Your task to perform on an android device: Open display settings Image 0: 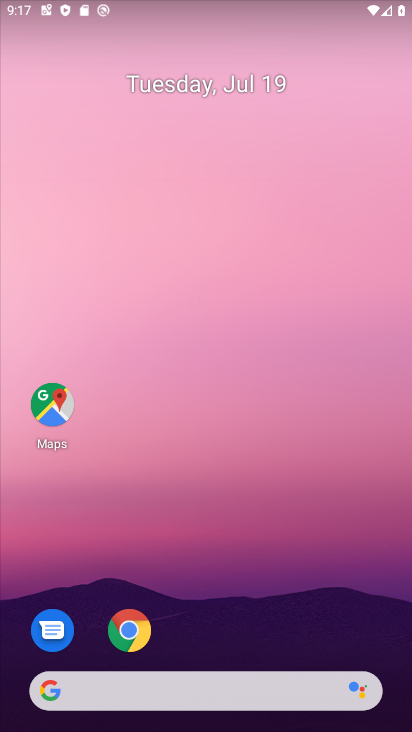
Step 0: drag from (200, 620) to (201, 157)
Your task to perform on an android device: Open display settings Image 1: 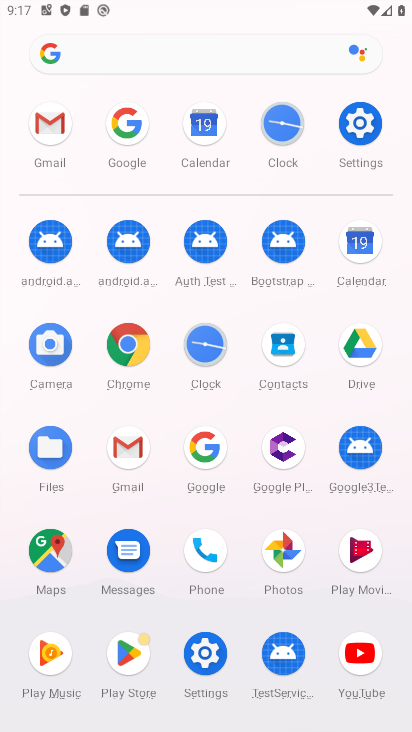
Step 1: click (357, 123)
Your task to perform on an android device: Open display settings Image 2: 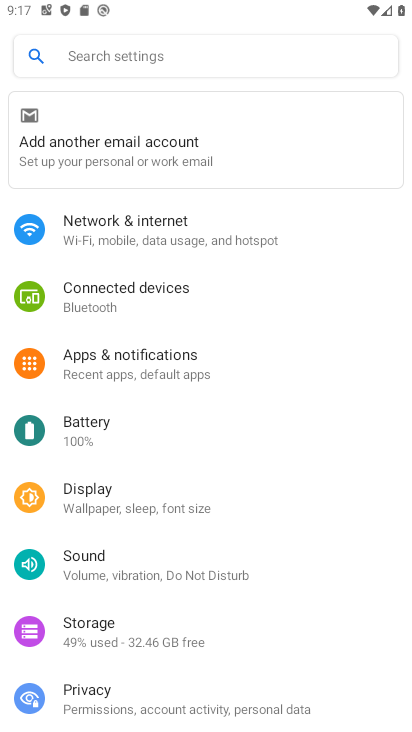
Step 2: click (106, 485)
Your task to perform on an android device: Open display settings Image 3: 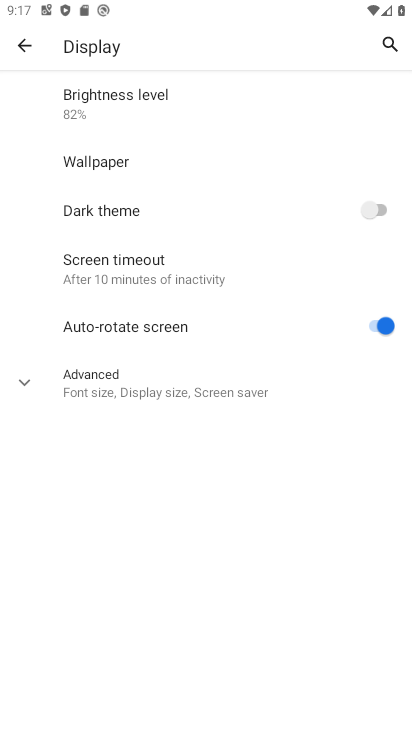
Step 3: task complete